Your task to perform on an android device: star an email in the gmail app Image 0: 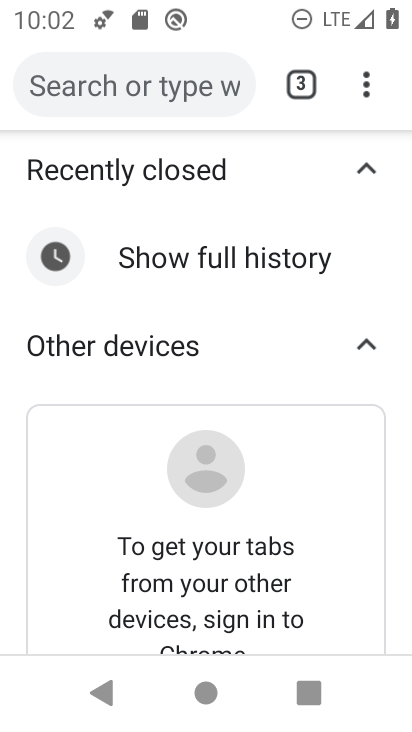
Step 0: press home button
Your task to perform on an android device: star an email in the gmail app Image 1: 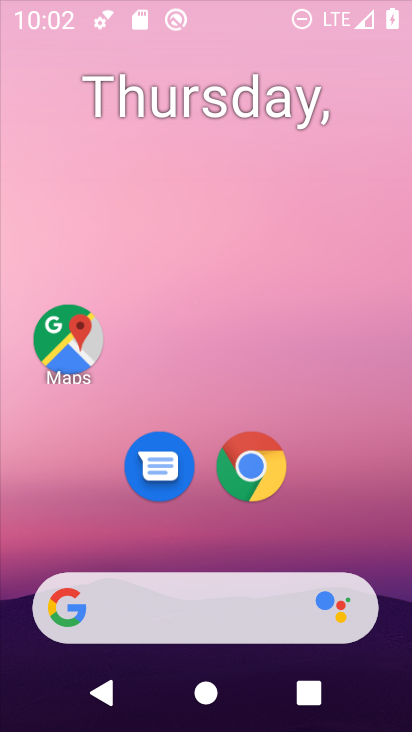
Step 1: drag from (309, 658) to (318, 50)
Your task to perform on an android device: star an email in the gmail app Image 2: 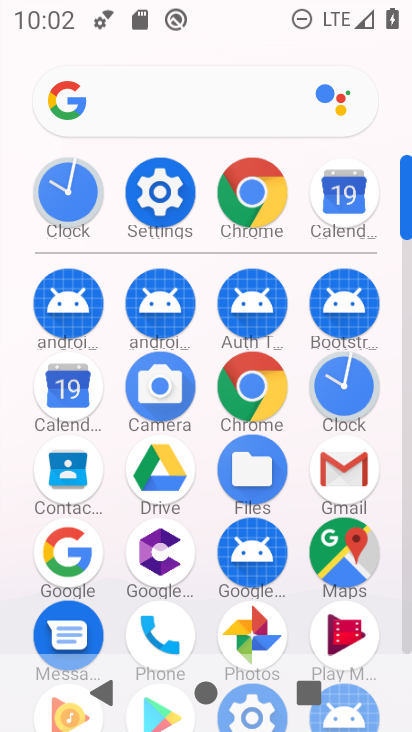
Step 2: click (329, 450)
Your task to perform on an android device: star an email in the gmail app Image 3: 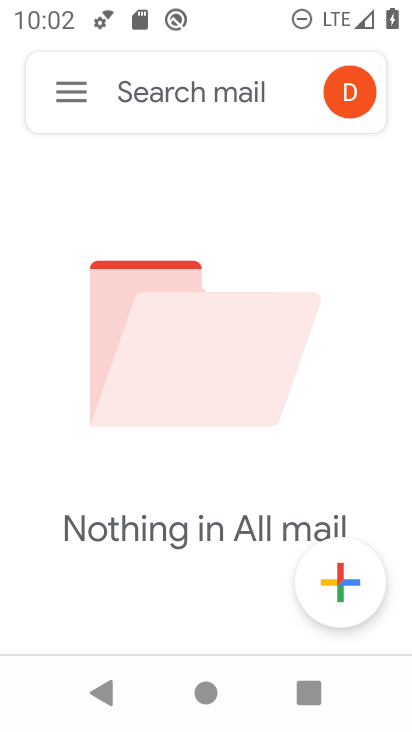
Step 3: drag from (61, 96) to (83, 285)
Your task to perform on an android device: star an email in the gmail app Image 4: 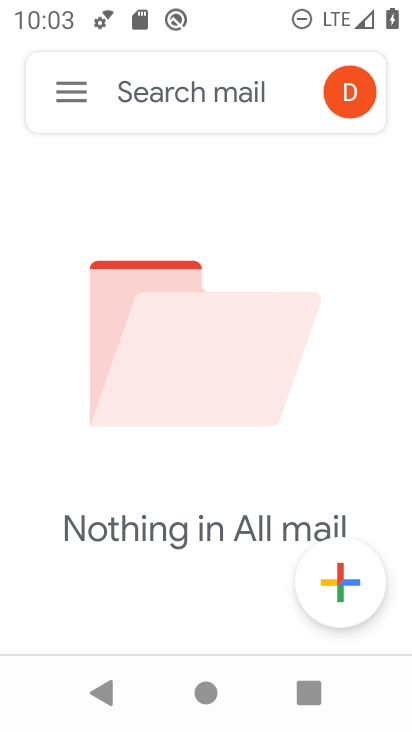
Step 4: click (74, 101)
Your task to perform on an android device: star an email in the gmail app Image 5: 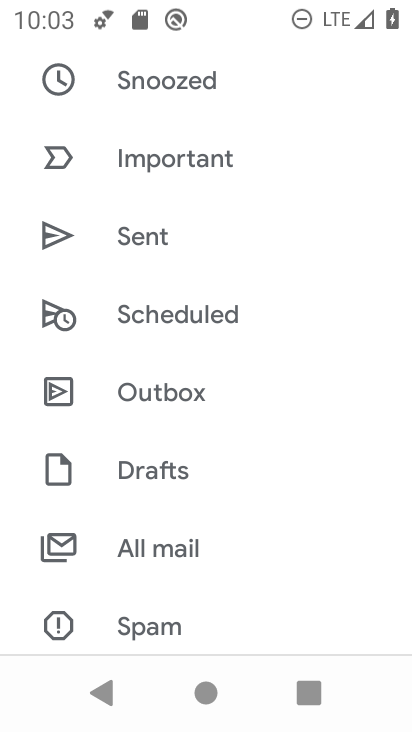
Step 5: drag from (176, 190) to (248, 700)
Your task to perform on an android device: star an email in the gmail app Image 6: 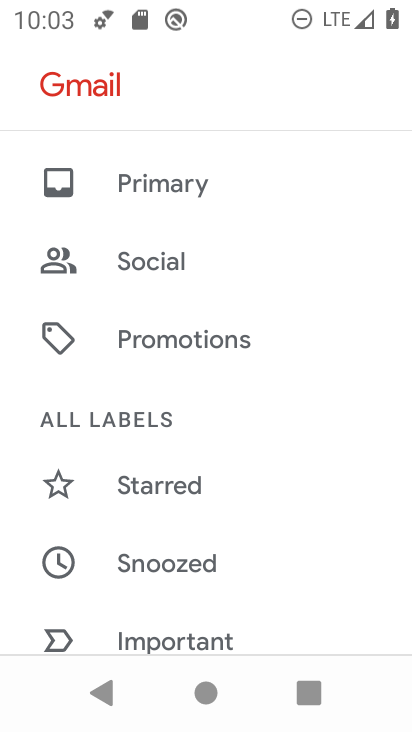
Step 6: click (183, 489)
Your task to perform on an android device: star an email in the gmail app Image 7: 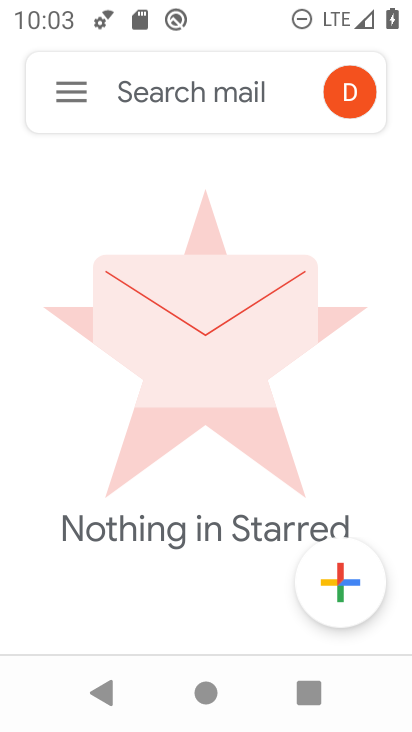
Step 7: task complete